Your task to perform on an android device: What is the recent news? Image 0: 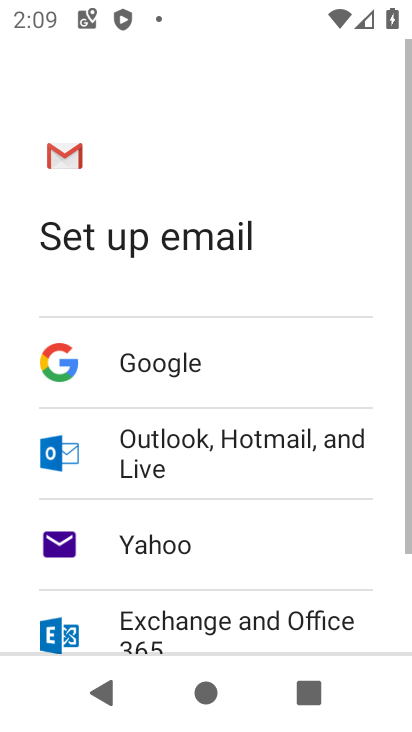
Step 0: press home button
Your task to perform on an android device: What is the recent news? Image 1: 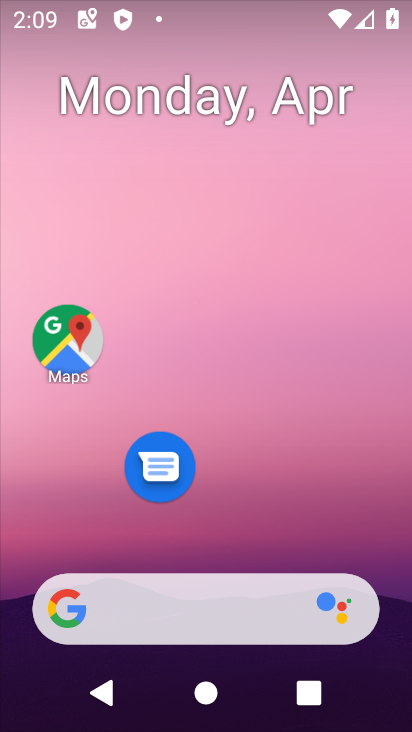
Step 1: drag from (284, 470) to (334, 0)
Your task to perform on an android device: What is the recent news? Image 2: 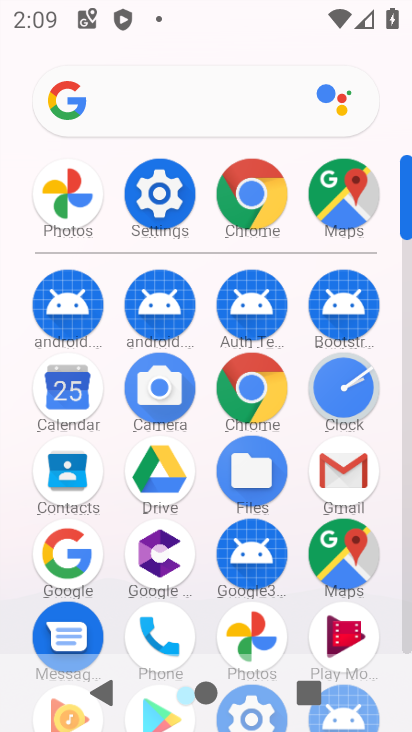
Step 2: click (167, 121)
Your task to perform on an android device: What is the recent news? Image 3: 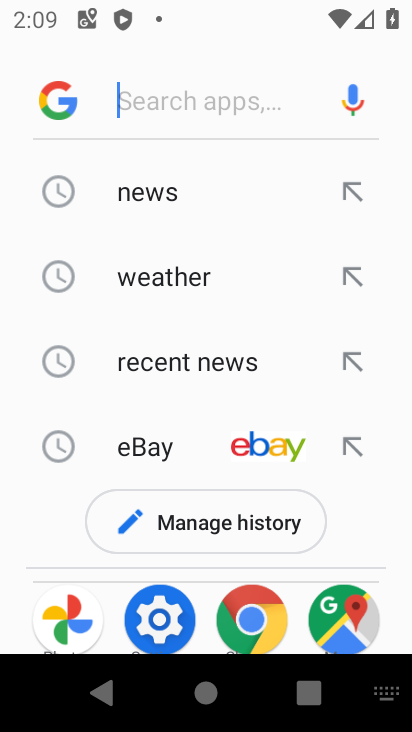
Step 3: type "what is the recent news"
Your task to perform on an android device: What is the recent news? Image 4: 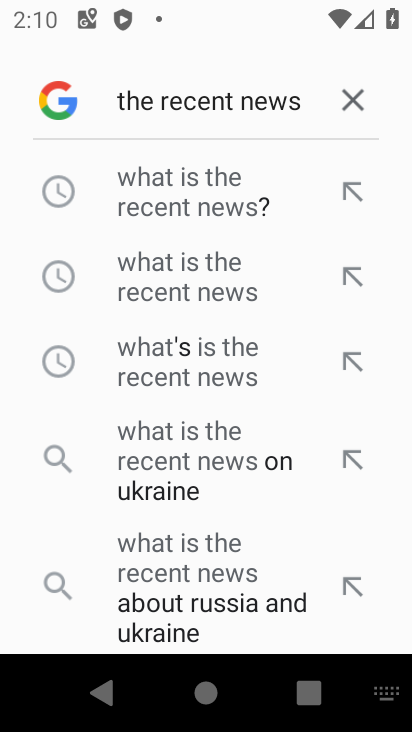
Step 4: click (230, 213)
Your task to perform on an android device: What is the recent news? Image 5: 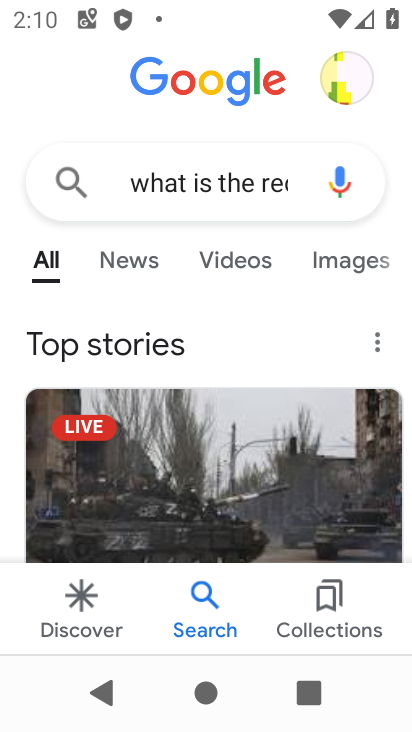
Step 5: click (122, 281)
Your task to perform on an android device: What is the recent news? Image 6: 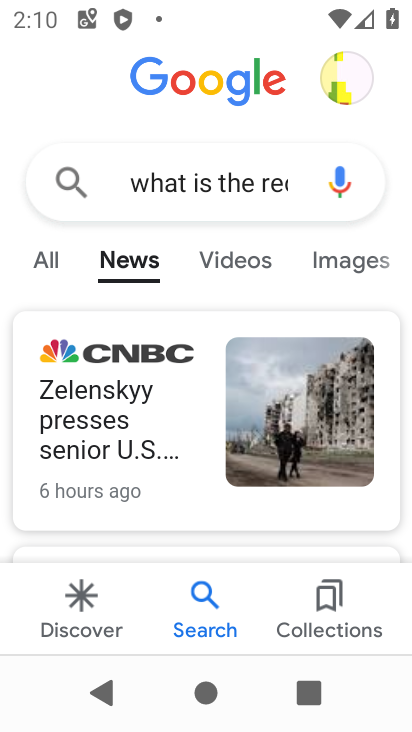
Step 6: task complete